Your task to perform on an android device: toggle data saver in the chrome app Image 0: 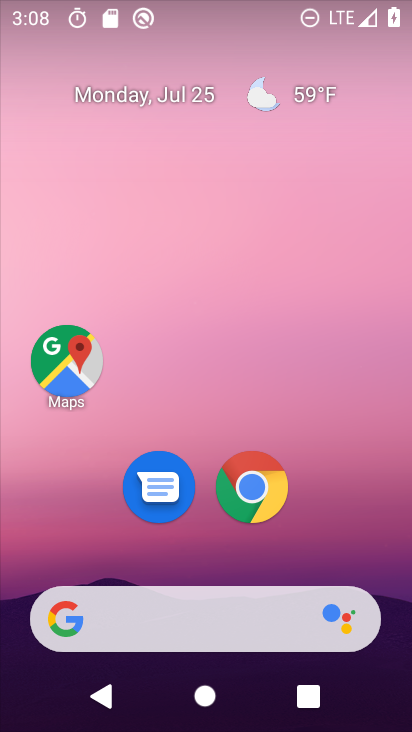
Step 0: click (270, 465)
Your task to perform on an android device: toggle data saver in the chrome app Image 1: 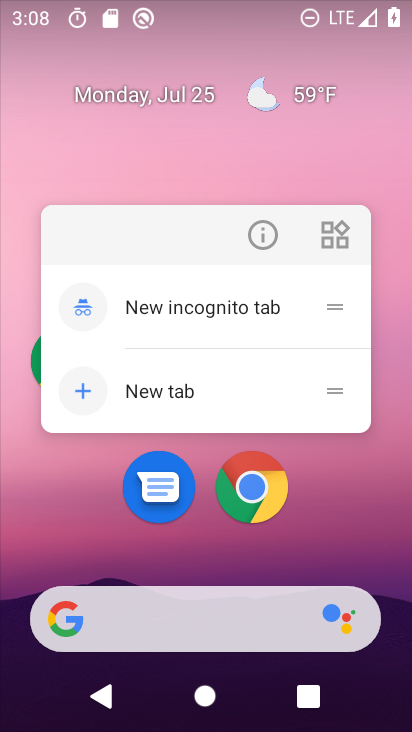
Step 1: click (258, 487)
Your task to perform on an android device: toggle data saver in the chrome app Image 2: 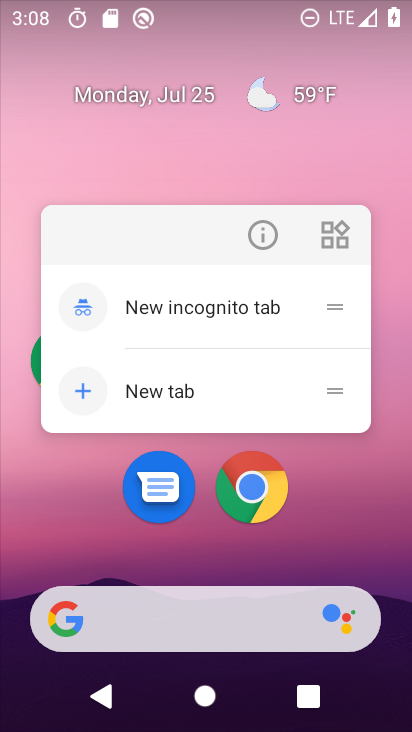
Step 2: click (241, 483)
Your task to perform on an android device: toggle data saver in the chrome app Image 3: 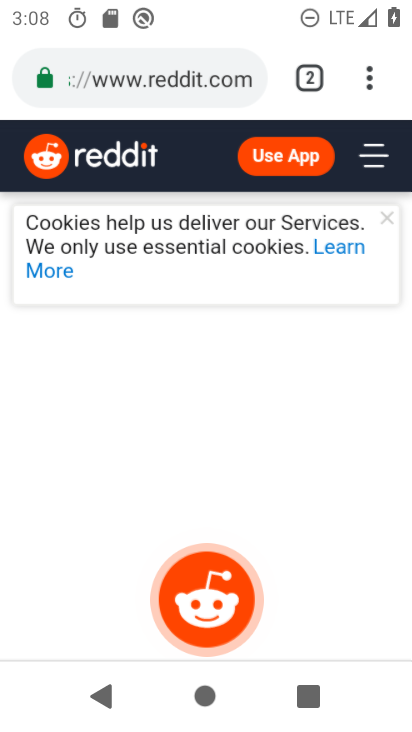
Step 3: drag from (368, 66) to (131, 609)
Your task to perform on an android device: toggle data saver in the chrome app Image 4: 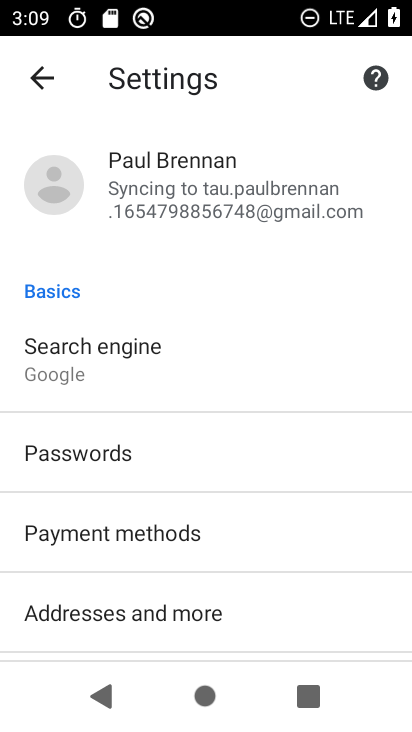
Step 4: drag from (76, 588) to (282, 66)
Your task to perform on an android device: toggle data saver in the chrome app Image 5: 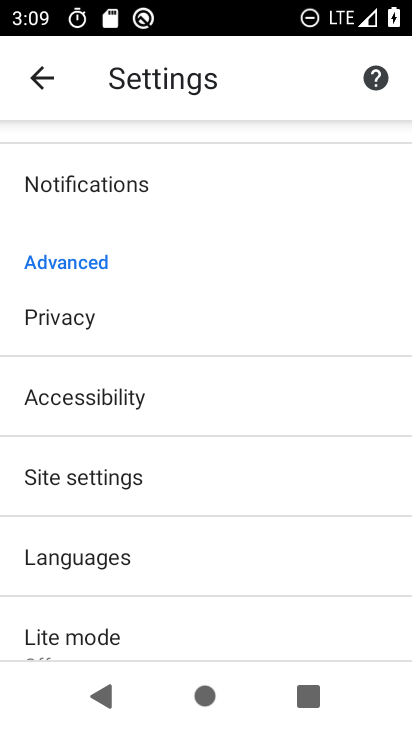
Step 5: drag from (159, 579) to (239, 153)
Your task to perform on an android device: toggle data saver in the chrome app Image 6: 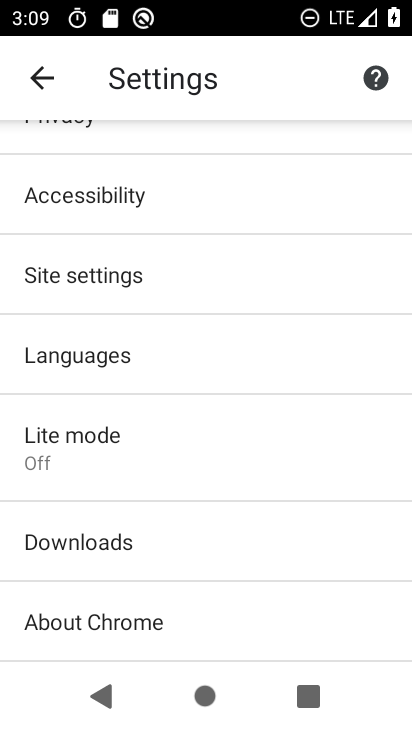
Step 6: click (84, 449)
Your task to perform on an android device: toggle data saver in the chrome app Image 7: 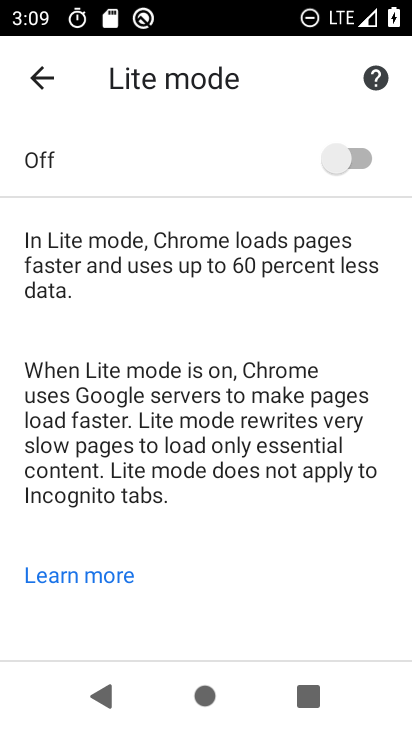
Step 7: click (366, 151)
Your task to perform on an android device: toggle data saver in the chrome app Image 8: 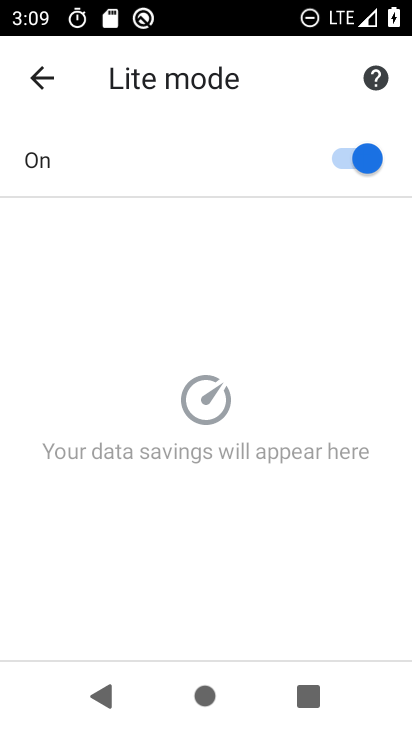
Step 8: task complete